Your task to perform on an android device: check the backup settings in the google photos Image 0: 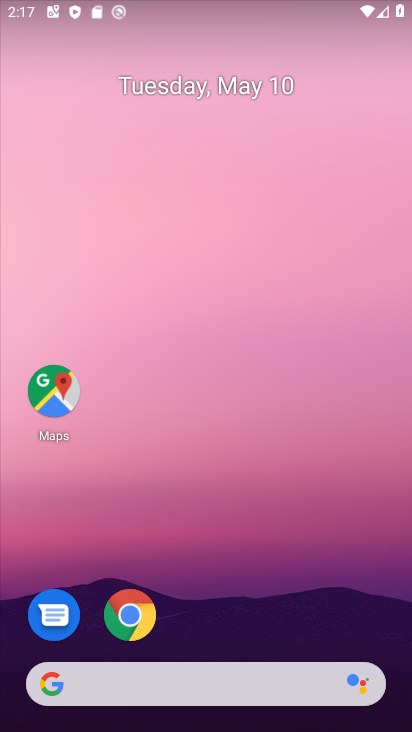
Step 0: drag from (295, 575) to (302, 87)
Your task to perform on an android device: check the backup settings in the google photos Image 1: 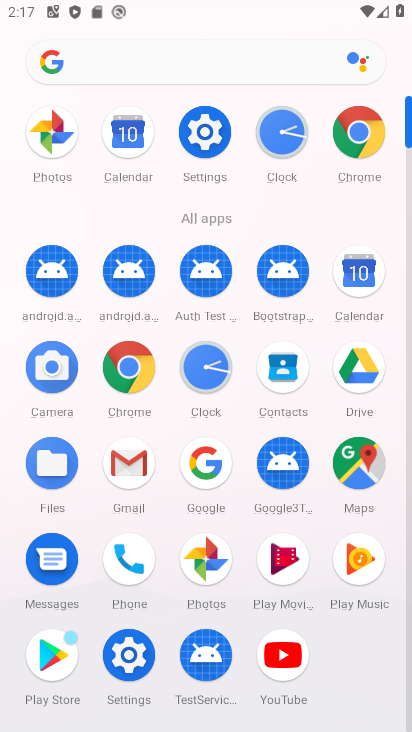
Step 1: click (210, 569)
Your task to perform on an android device: check the backup settings in the google photos Image 2: 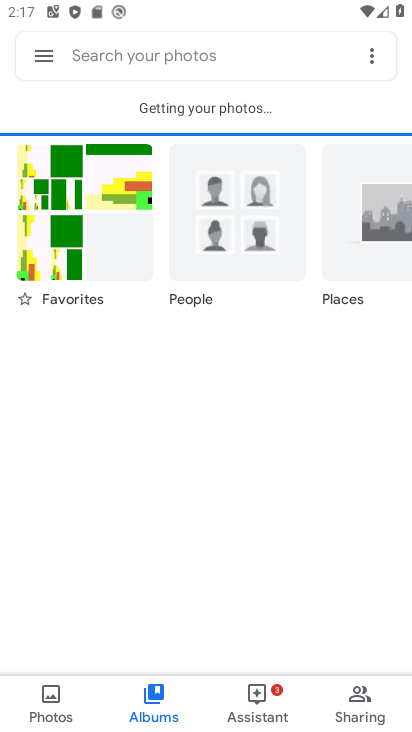
Step 2: click (33, 54)
Your task to perform on an android device: check the backup settings in the google photos Image 3: 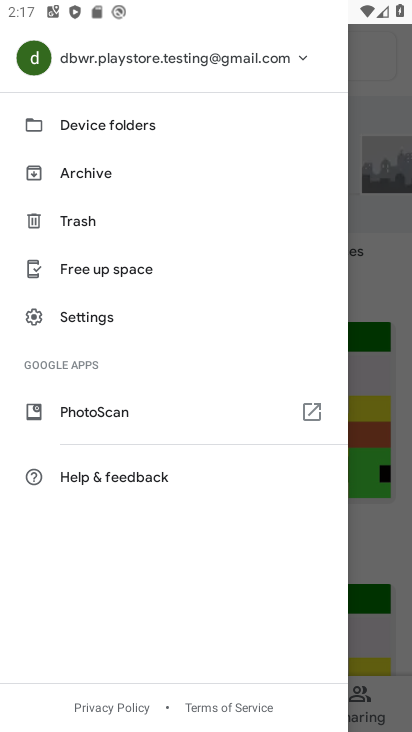
Step 3: click (68, 318)
Your task to perform on an android device: check the backup settings in the google photos Image 4: 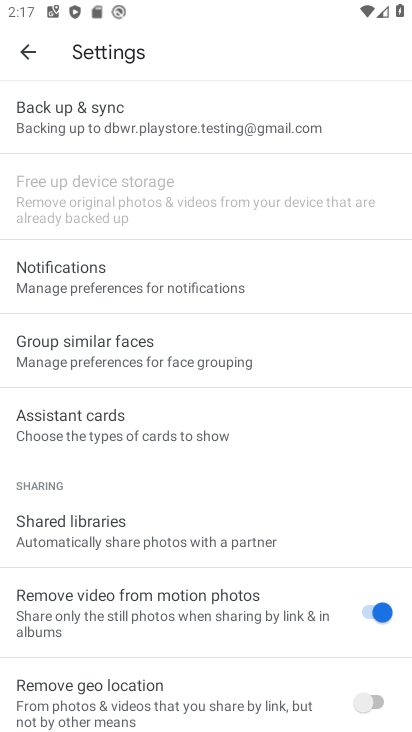
Step 4: click (43, 112)
Your task to perform on an android device: check the backup settings in the google photos Image 5: 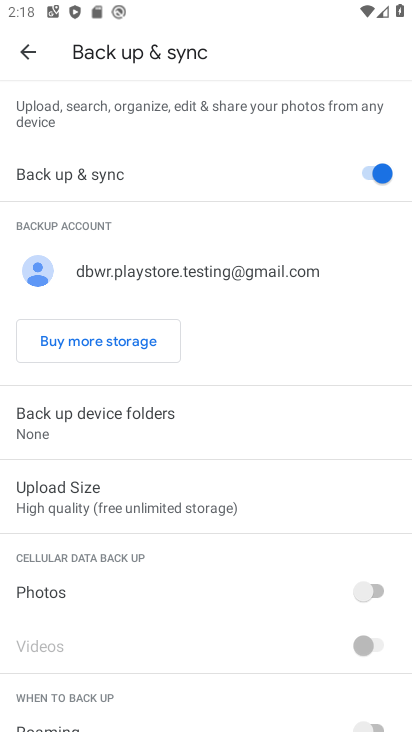
Step 5: task complete